Your task to perform on an android device: Open the phone app and click the voicemail tab. Image 0: 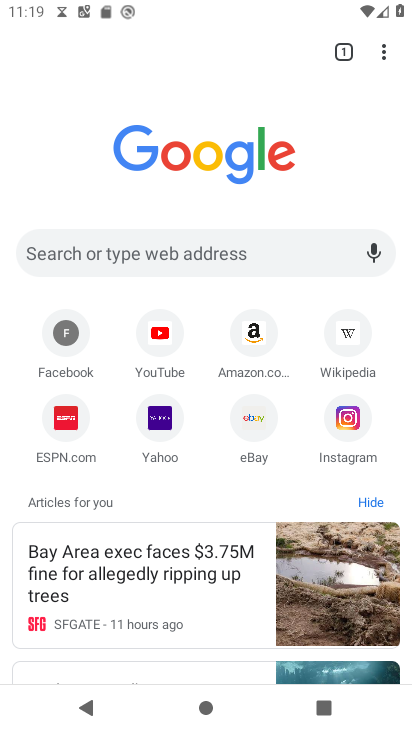
Step 0: press home button
Your task to perform on an android device: Open the phone app and click the voicemail tab. Image 1: 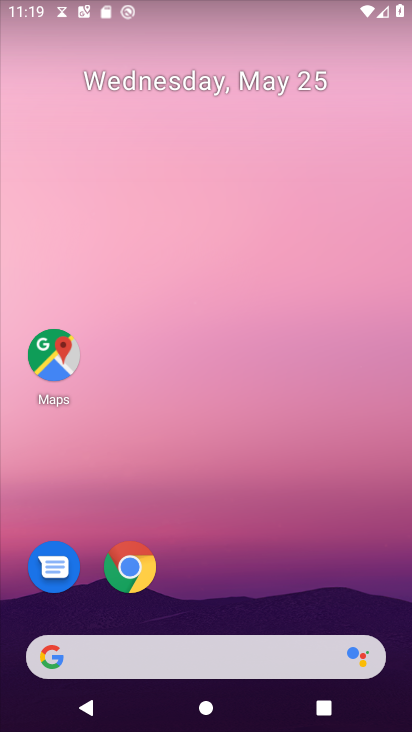
Step 1: drag from (267, 593) to (243, 51)
Your task to perform on an android device: Open the phone app and click the voicemail tab. Image 2: 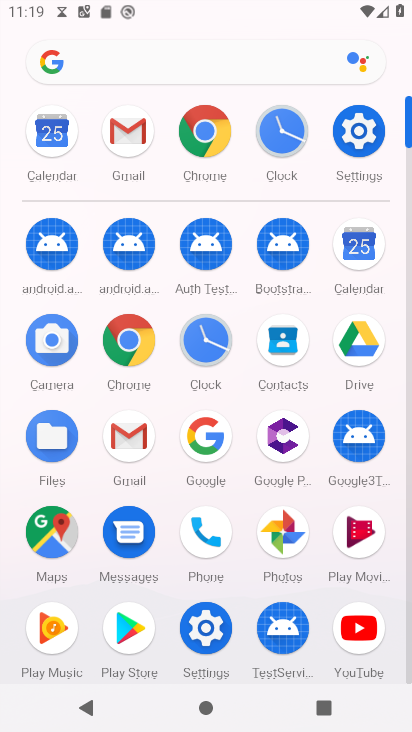
Step 2: click (206, 529)
Your task to perform on an android device: Open the phone app and click the voicemail tab. Image 3: 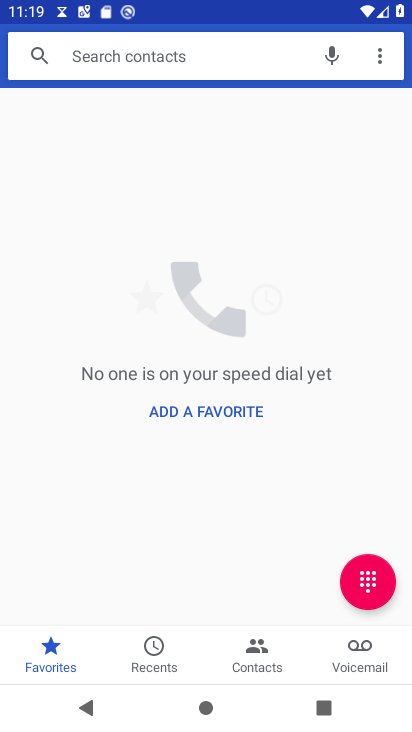
Step 3: click (360, 645)
Your task to perform on an android device: Open the phone app and click the voicemail tab. Image 4: 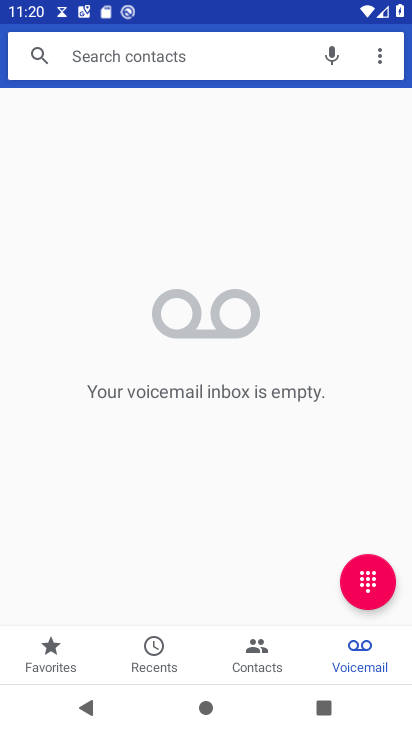
Step 4: task complete